Your task to perform on an android device: What's the weather going to be tomorrow? Image 0: 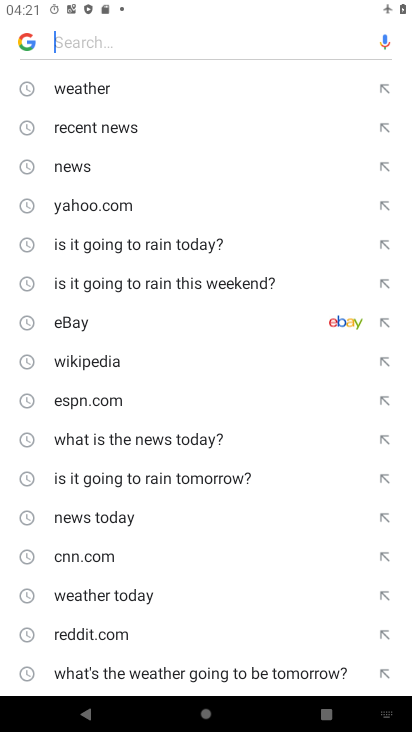
Step 0: press home button
Your task to perform on an android device: What's the weather going to be tomorrow? Image 1: 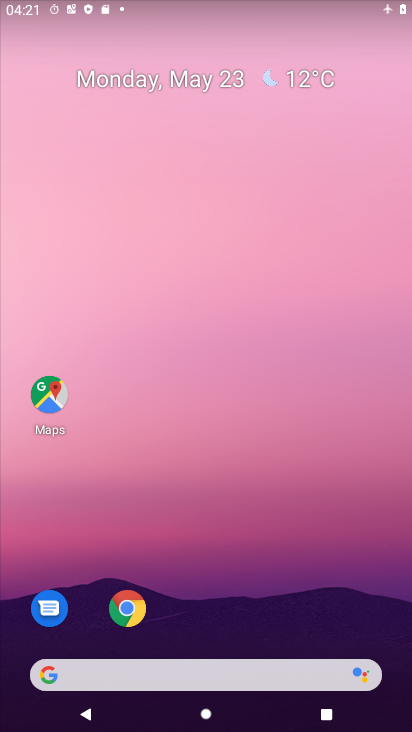
Step 1: click (302, 80)
Your task to perform on an android device: What's the weather going to be tomorrow? Image 2: 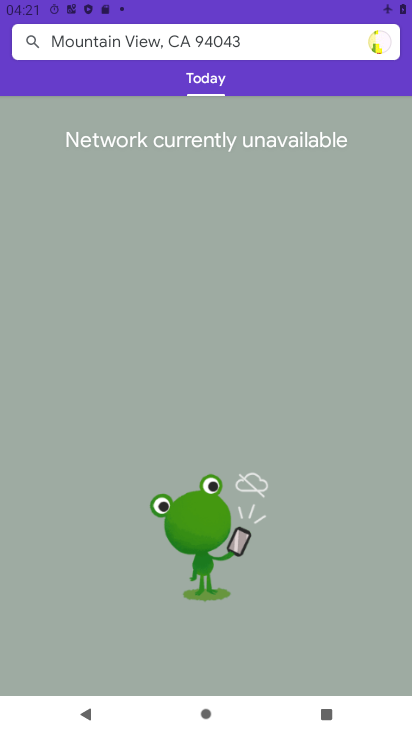
Step 2: task complete